Your task to perform on an android device: turn on wifi Image 0: 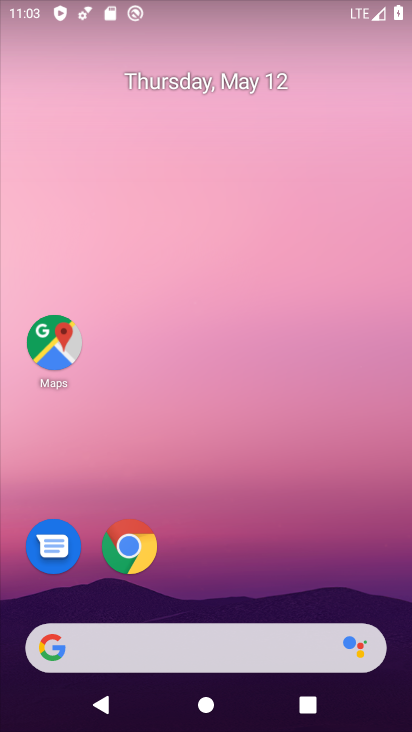
Step 0: drag from (225, 720) to (238, 101)
Your task to perform on an android device: turn on wifi Image 1: 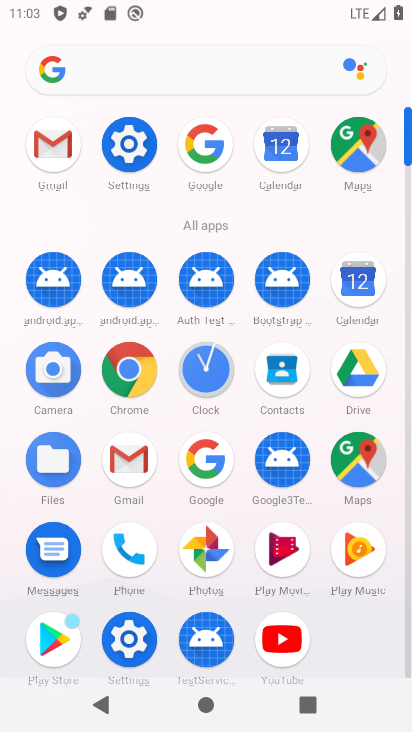
Step 1: click (121, 144)
Your task to perform on an android device: turn on wifi Image 2: 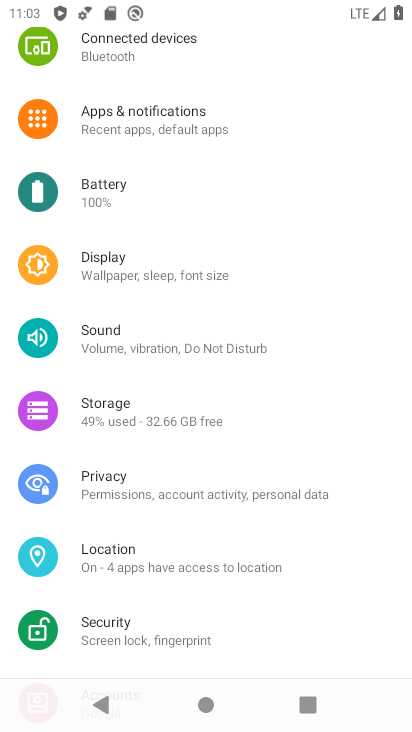
Step 2: drag from (286, 151) to (283, 577)
Your task to perform on an android device: turn on wifi Image 3: 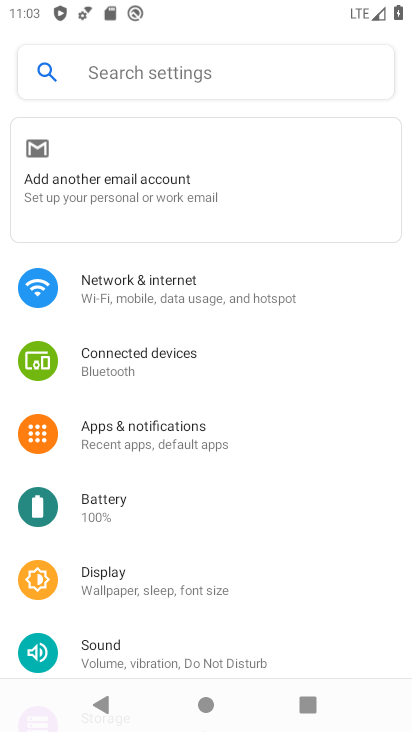
Step 3: click (169, 291)
Your task to perform on an android device: turn on wifi Image 4: 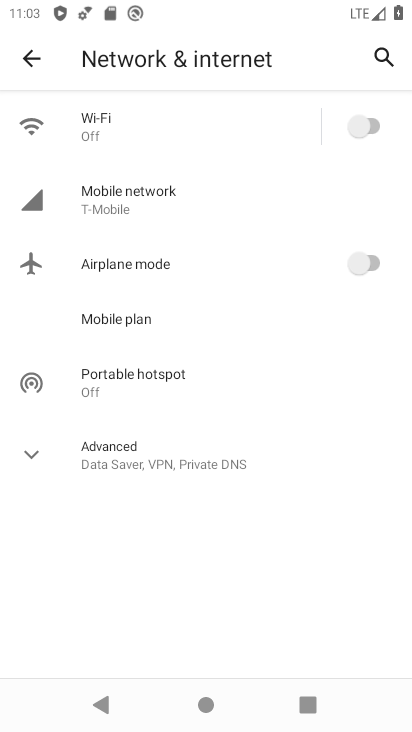
Step 4: click (373, 125)
Your task to perform on an android device: turn on wifi Image 5: 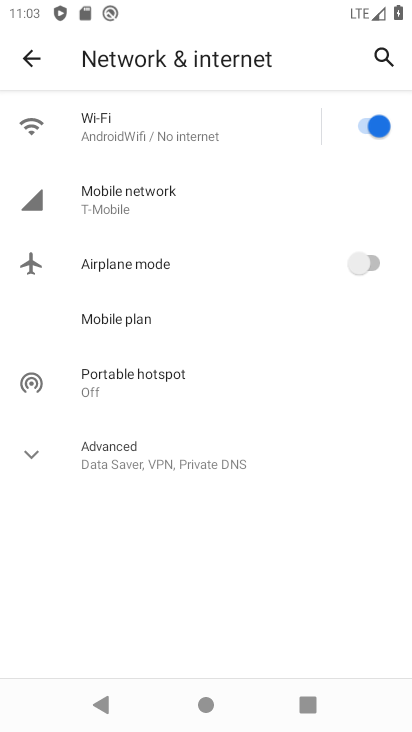
Step 5: task complete